Your task to perform on an android device: Find coffee shops on Maps Image 0: 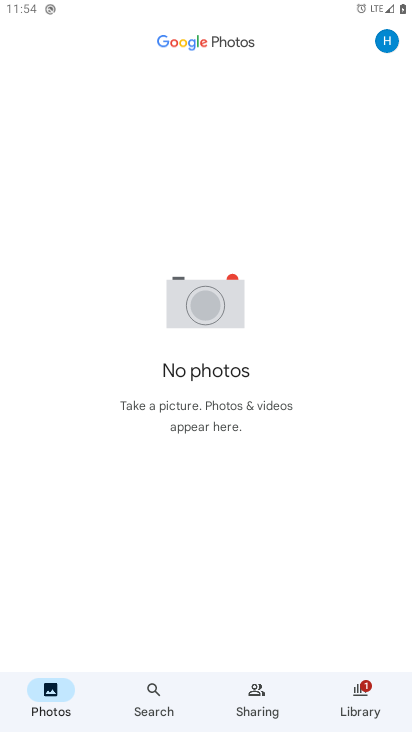
Step 0: press home button
Your task to perform on an android device: Find coffee shops on Maps Image 1: 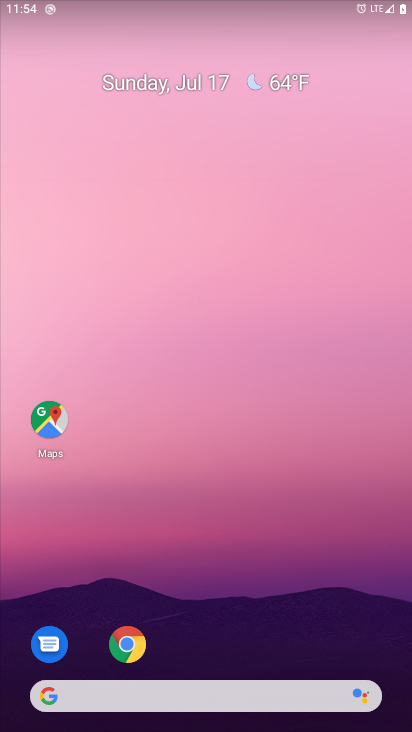
Step 1: click (39, 418)
Your task to perform on an android device: Find coffee shops on Maps Image 2: 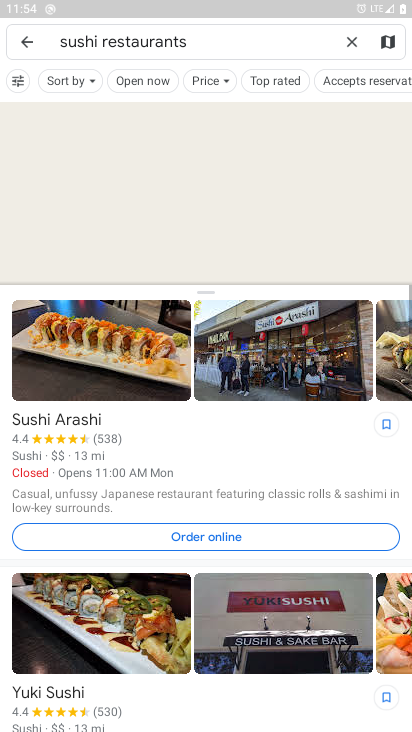
Step 2: click (354, 37)
Your task to perform on an android device: Find coffee shops on Maps Image 3: 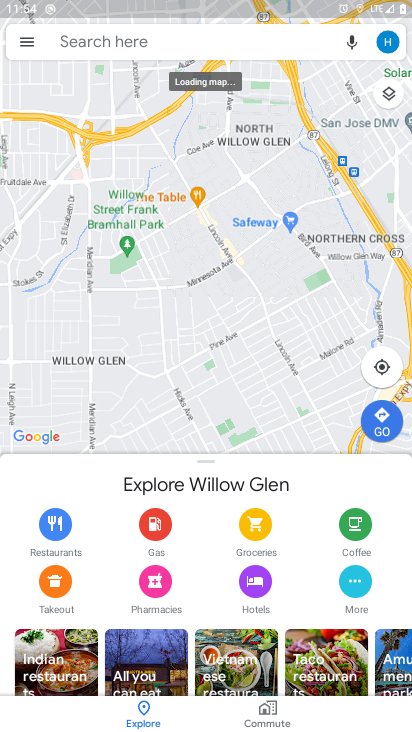
Step 3: type "coffee shops"
Your task to perform on an android device: Find coffee shops on Maps Image 4: 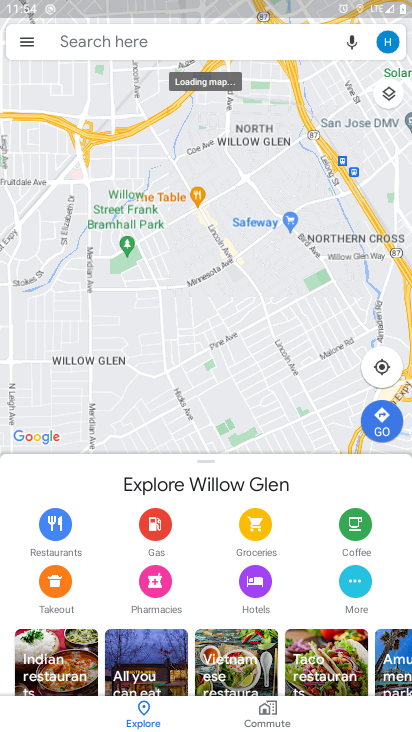
Step 4: click (104, 35)
Your task to perform on an android device: Find coffee shops on Maps Image 5: 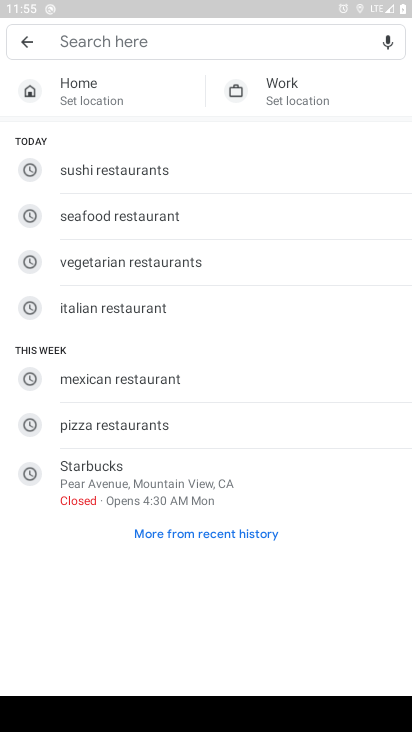
Step 5: click (140, 42)
Your task to perform on an android device: Find coffee shops on Maps Image 6: 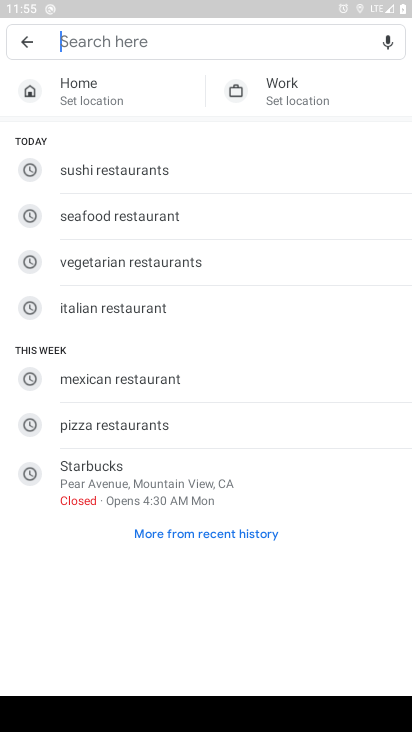
Step 6: type "coffee shops"
Your task to perform on an android device: Find coffee shops on Maps Image 7: 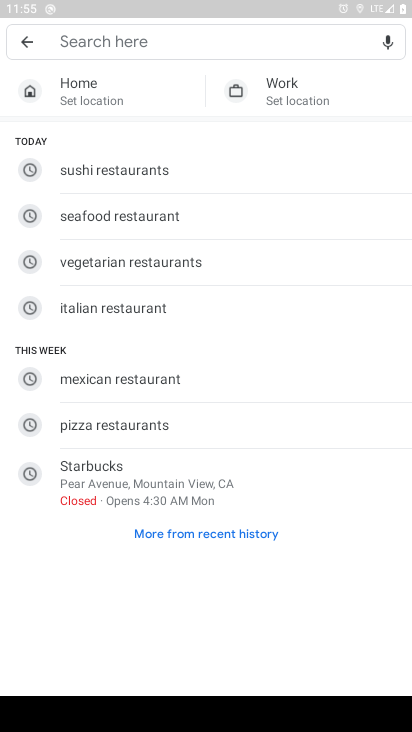
Step 7: click (97, 38)
Your task to perform on an android device: Find coffee shops on Maps Image 8: 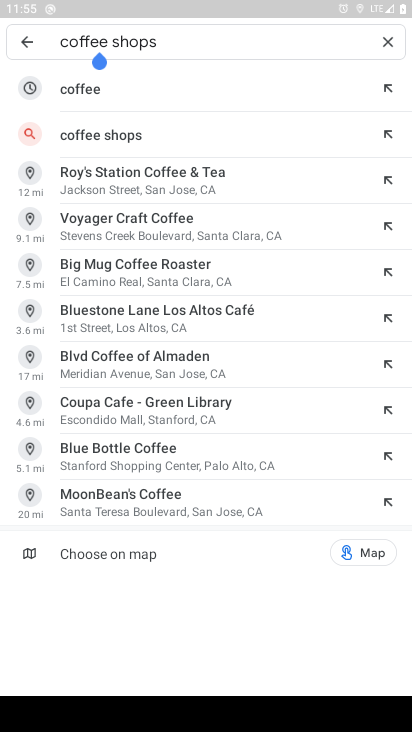
Step 8: click (112, 133)
Your task to perform on an android device: Find coffee shops on Maps Image 9: 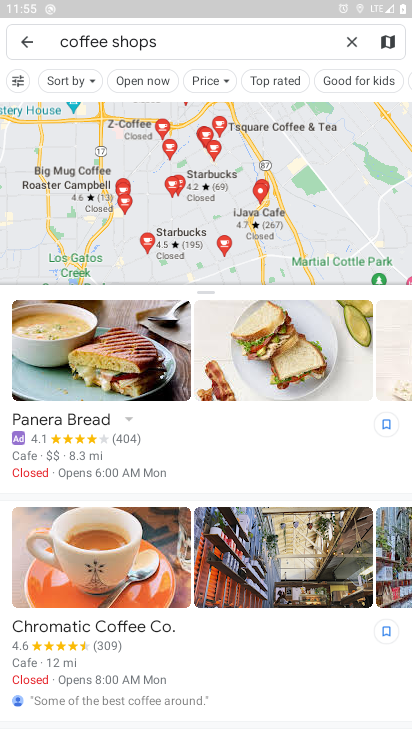
Step 9: task complete